Your task to perform on an android device: Open Google Maps and go to "Timeline" Image 0: 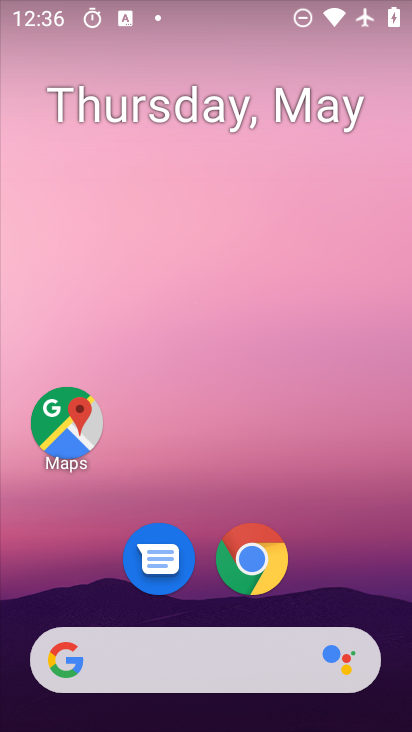
Step 0: drag from (186, 641) to (207, 195)
Your task to perform on an android device: Open Google Maps and go to "Timeline" Image 1: 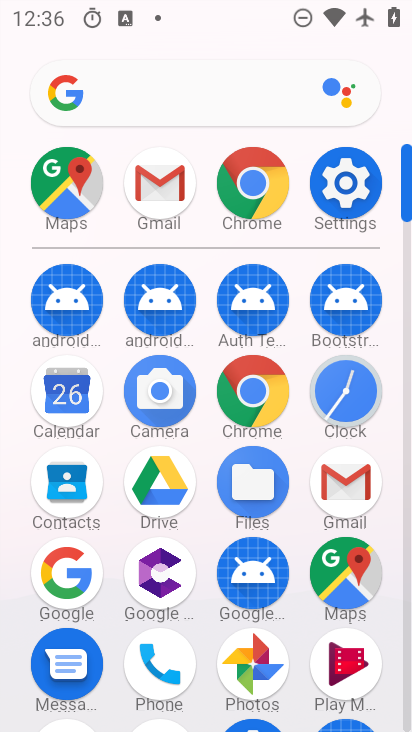
Step 1: click (354, 175)
Your task to perform on an android device: Open Google Maps and go to "Timeline" Image 2: 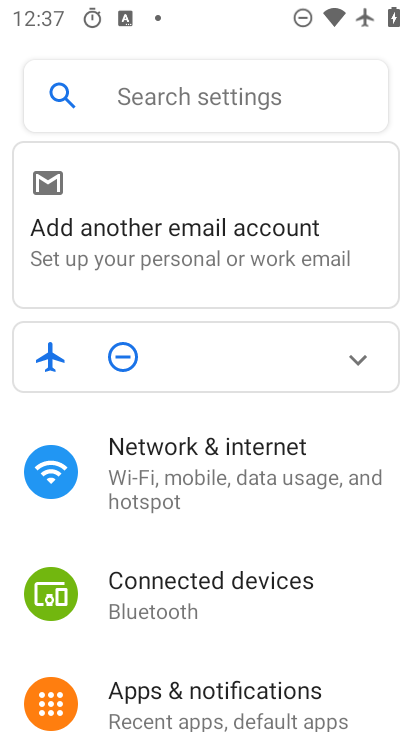
Step 2: press home button
Your task to perform on an android device: Open Google Maps and go to "Timeline" Image 3: 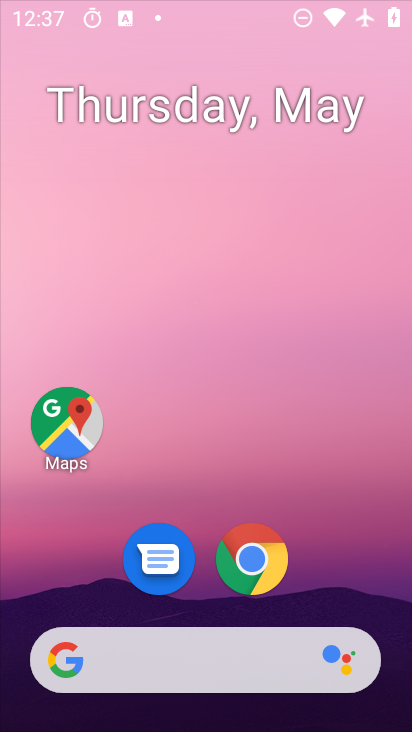
Step 3: drag from (216, 589) to (235, 130)
Your task to perform on an android device: Open Google Maps and go to "Timeline" Image 4: 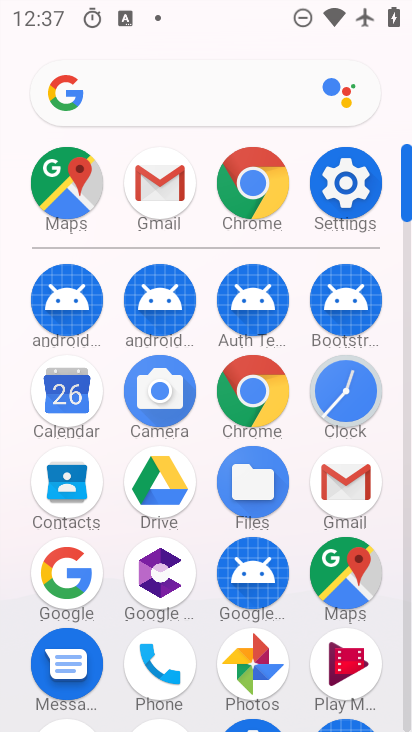
Step 4: click (348, 574)
Your task to perform on an android device: Open Google Maps and go to "Timeline" Image 5: 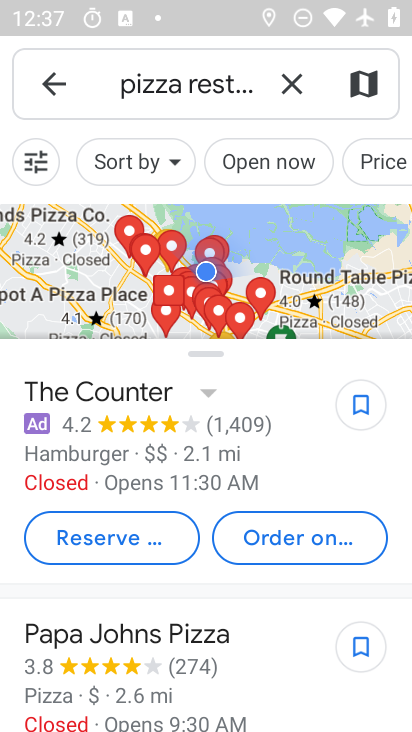
Step 5: click (61, 91)
Your task to perform on an android device: Open Google Maps and go to "Timeline" Image 6: 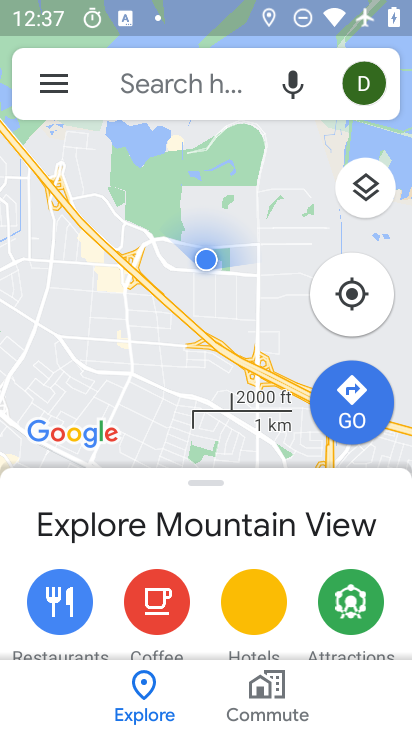
Step 6: click (61, 89)
Your task to perform on an android device: Open Google Maps and go to "Timeline" Image 7: 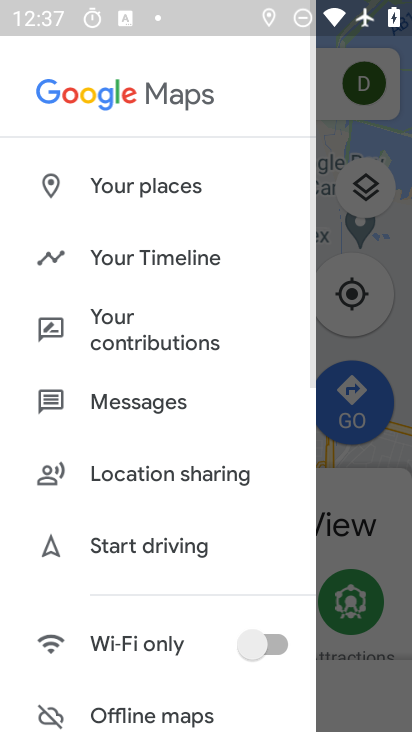
Step 7: click (201, 264)
Your task to perform on an android device: Open Google Maps and go to "Timeline" Image 8: 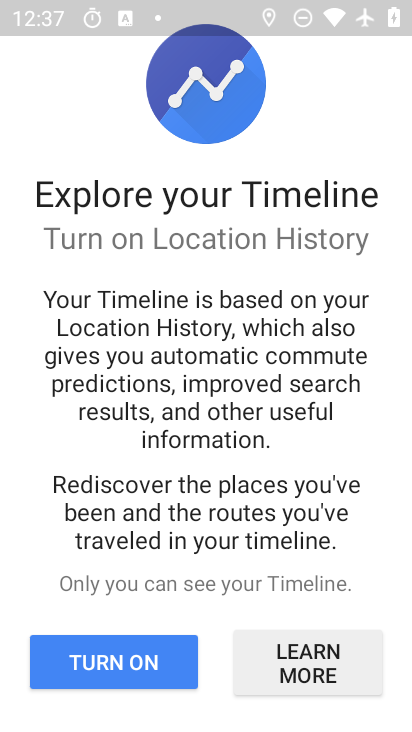
Step 8: click (107, 673)
Your task to perform on an android device: Open Google Maps and go to "Timeline" Image 9: 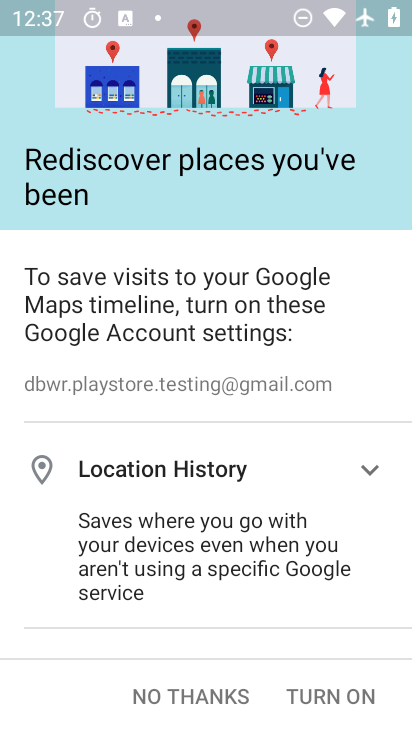
Step 9: click (328, 701)
Your task to perform on an android device: Open Google Maps and go to "Timeline" Image 10: 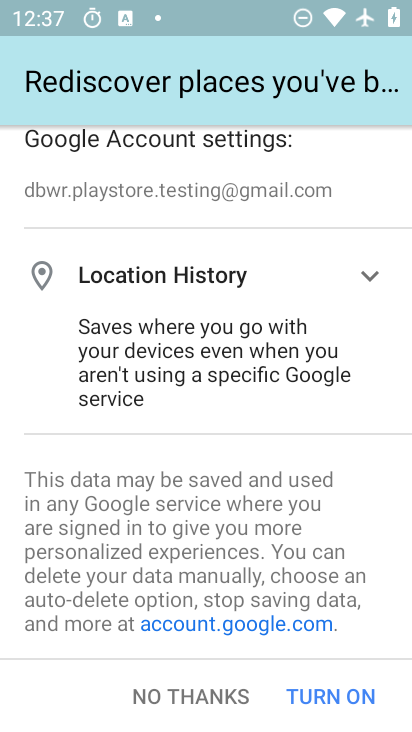
Step 10: click (330, 691)
Your task to perform on an android device: Open Google Maps and go to "Timeline" Image 11: 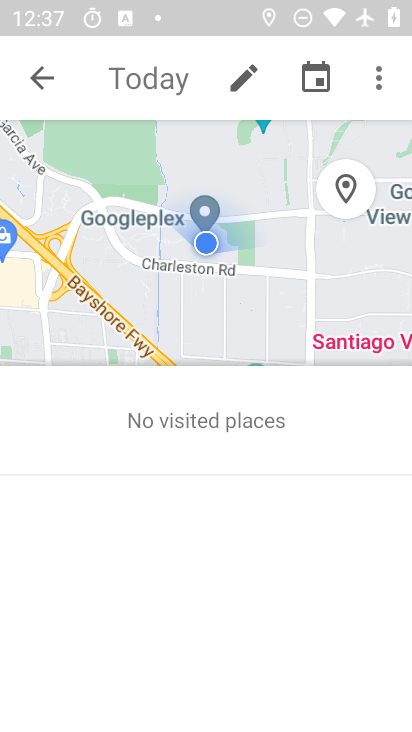
Step 11: task complete